Your task to perform on an android device: Open calendar and show me the first week of next month Image 0: 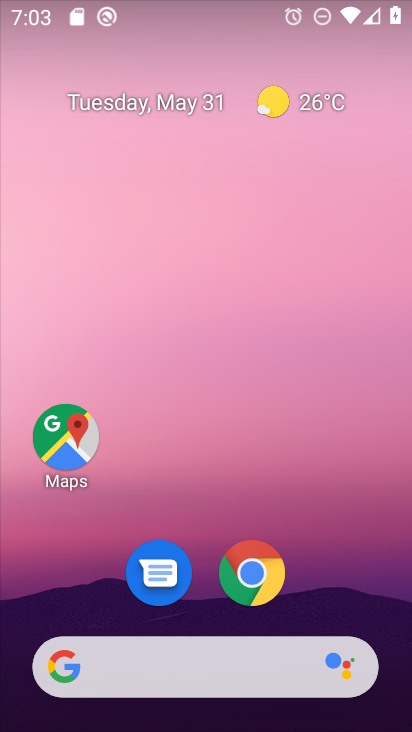
Step 0: drag from (407, 625) to (295, 36)
Your task to perform on an android device: Open calendar and show me the first week of next month Image 1: 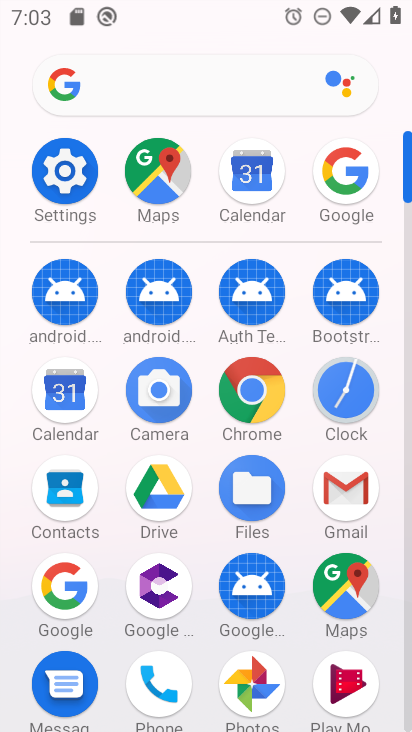
Step 1: click (67, 400)
Your task to perform on an android device: Open calendar and show me the first week of next month Image 2: 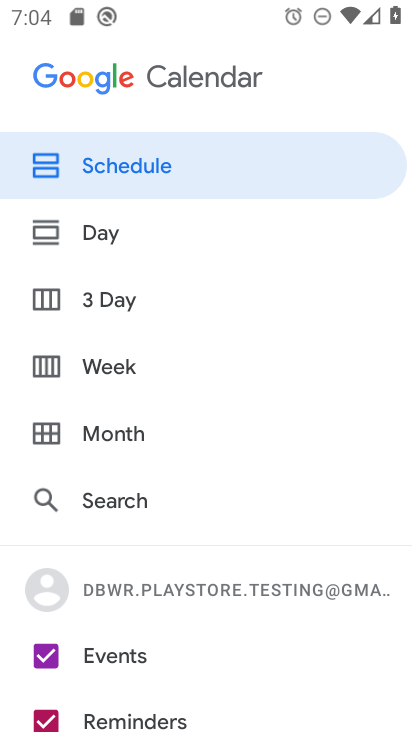
Step 2: press back button
Your task to perform on an android device: Open calendar and show me the first week of next month Image 3: 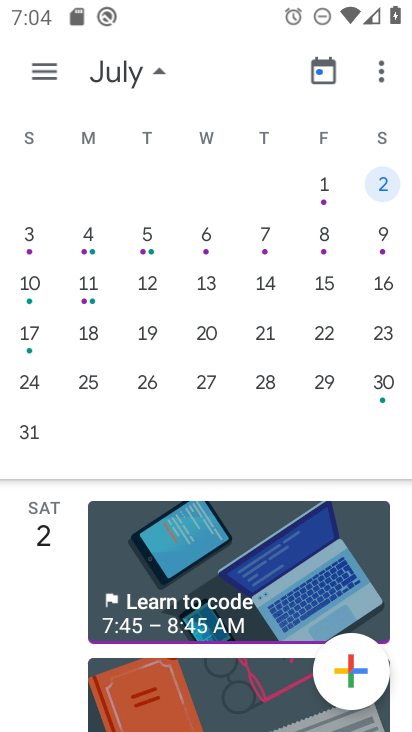
Step 3: click (136, 88)
Your task to perform on an android device: Open calendar and show me the first week of next month Image 4: 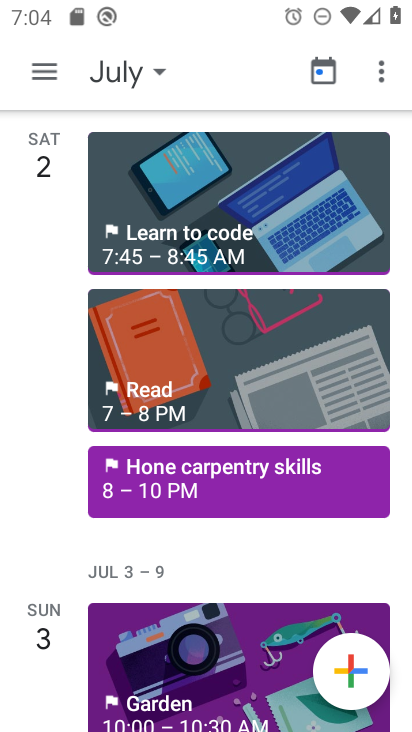
Step 4: click (103, 76)
Your task to perform on an android device: Open calendar and show me the first week of next month Image 5: 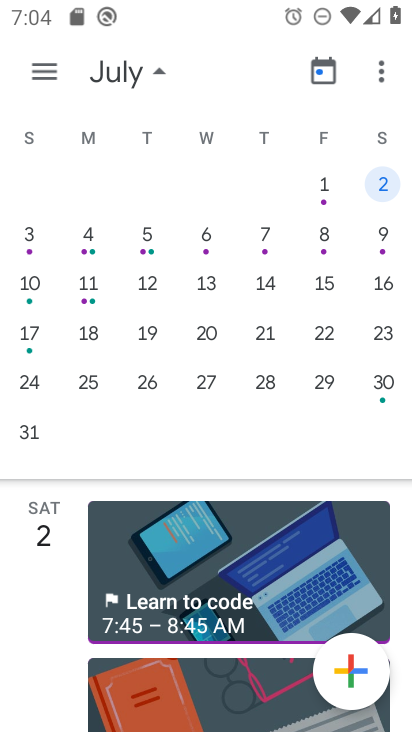
Step 5: drag from (344, 301) to (56, 263)
Your task to perform on an android device: Open calendar and show me the first week of next month Image 6: 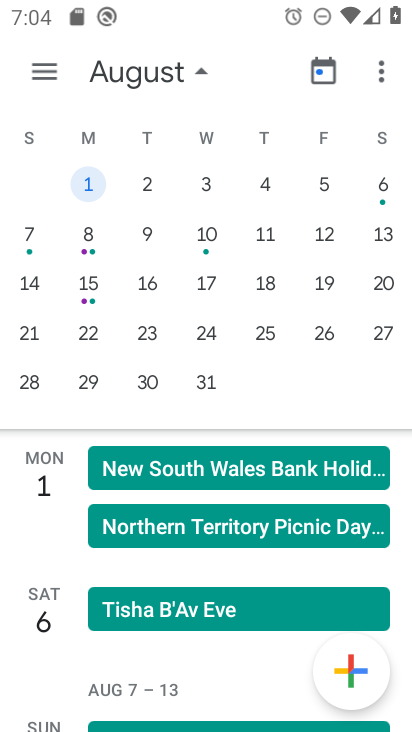
Step 6: click (92, 230)
Your task to perform on an android device: Open calendar and show me the first week of next month Image 7: 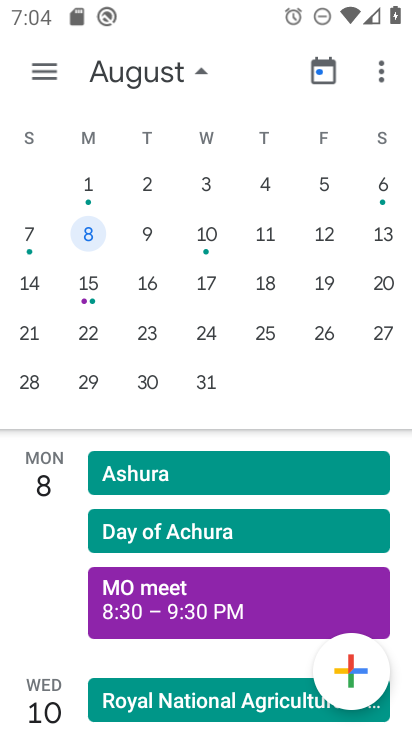
Step 7: task complete